Your task to perform on an android device: Show me the alarms in the clock app Image 0: 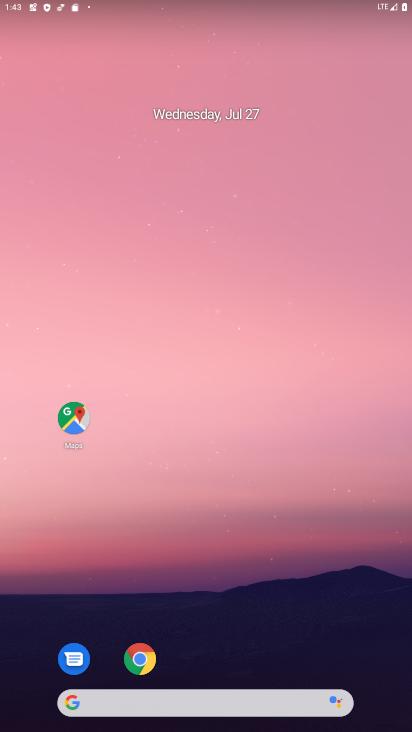
Step 0: drag from (213, 722) to (192, 221)
Your task to perform on an android device: Show me the alarms in the clock app Image 1: 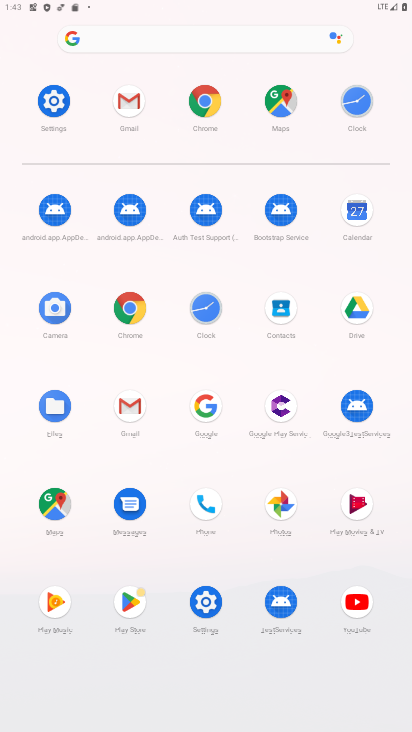
Step 1: click (208, 303)
Your task to perform on an android device: Show me the alarms in the clock app Image 2: 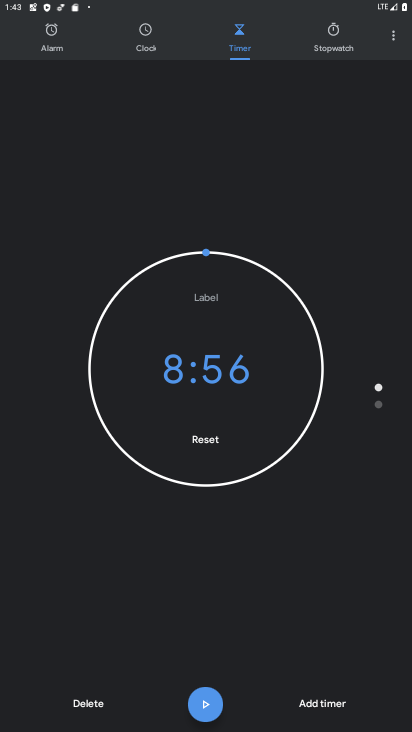
Step 2: click (53, 43)
Your task to perform on an android device: Show me the alarms in the clock app Image 3: 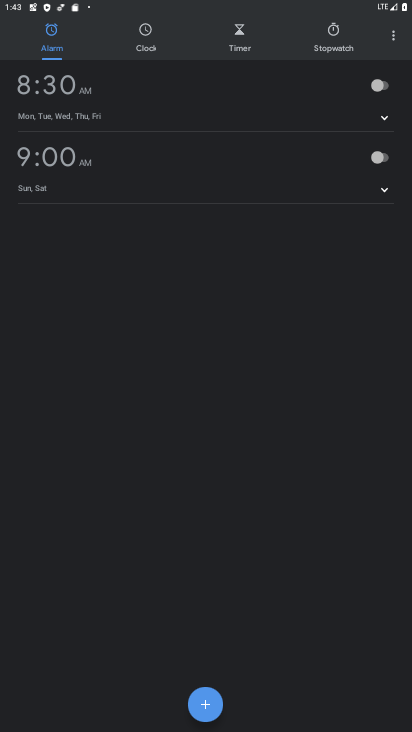
Step 3: task complete